Your task to perform on an android device: Open privacy settings Image 0: 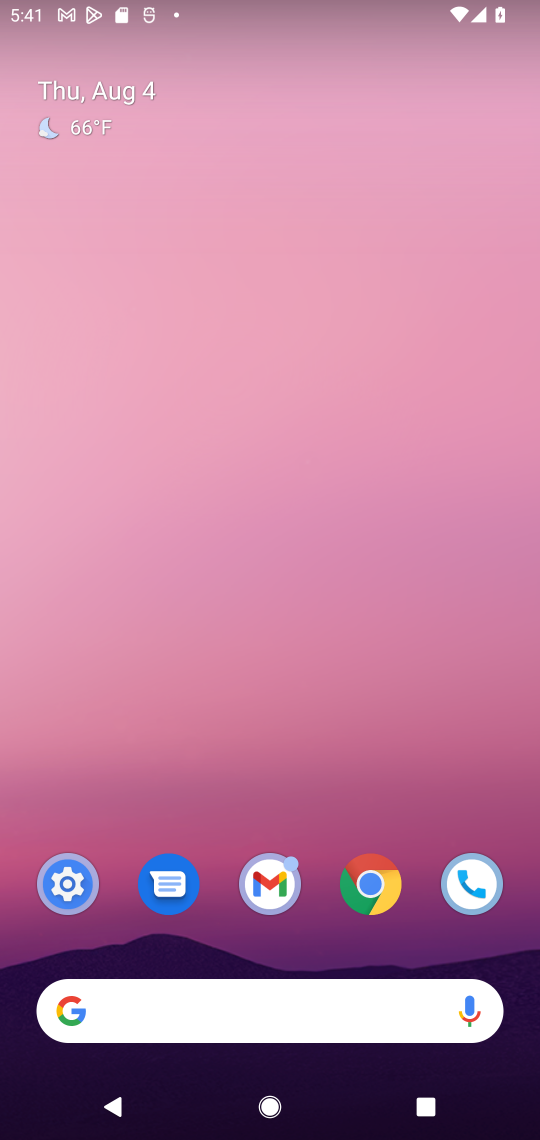
Step 0: click (86, 906)
Your task to perform on an android device: Open privacy settings Image 1: 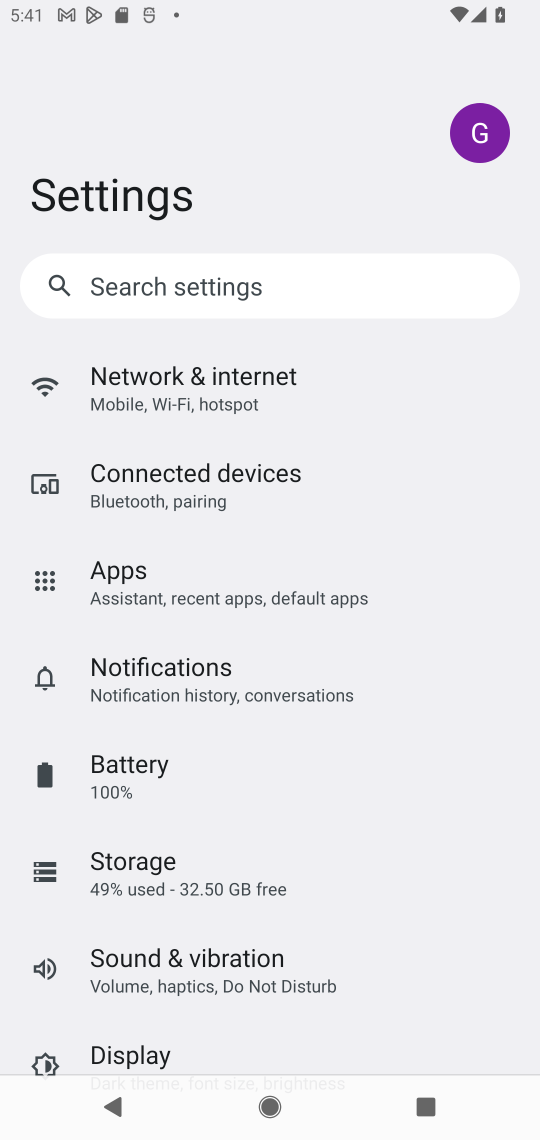
Step 1: drag from (237, 1030) to (261, 533)
Your task to perform on an android device: Open privacy settings Image 2: 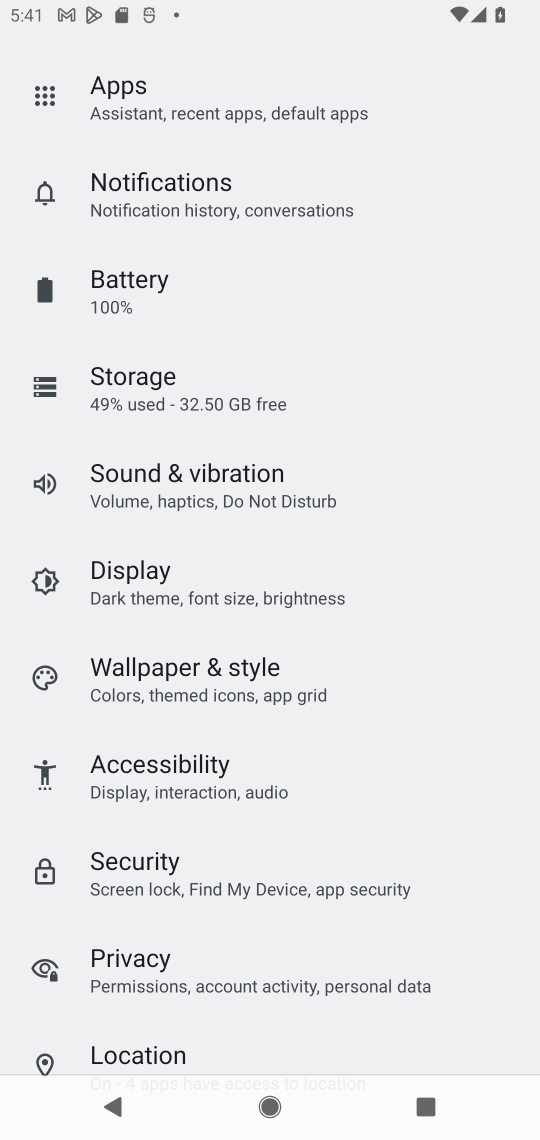
Step 2: click (371, 956)
Your task to perform on an android device: Open privacy settings Image 3: 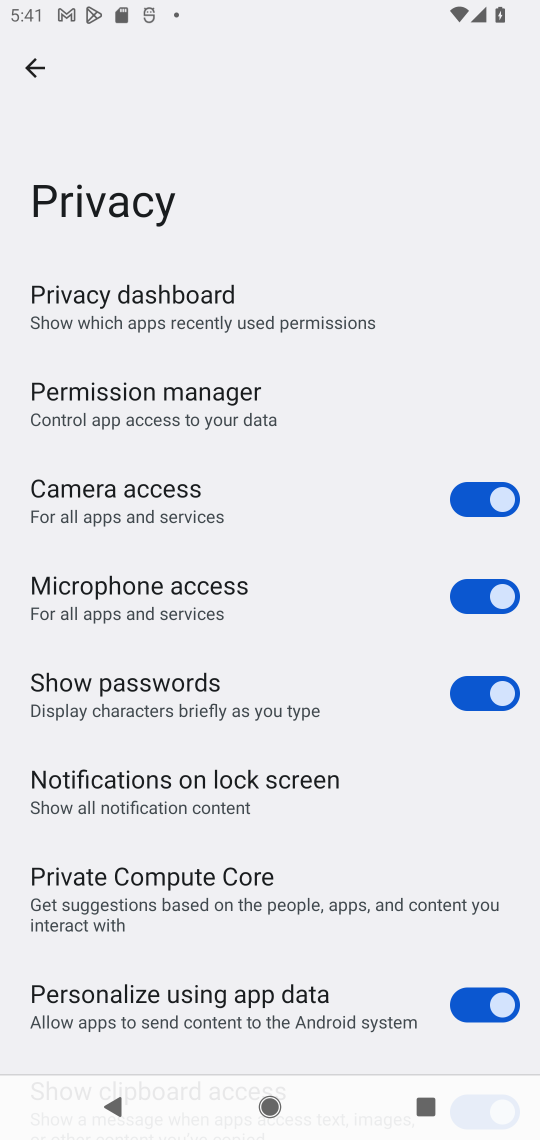
Step 3: task complete